Your task to perform on an android device: Open the stopwatch Image 0: 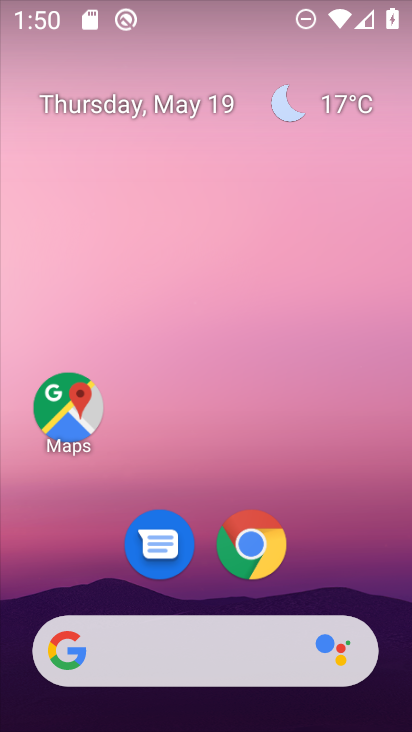
Step 0: drag from (226, 638) to (225, 248)
Your task to perform on an android device: Open the stopwatch Image 1: 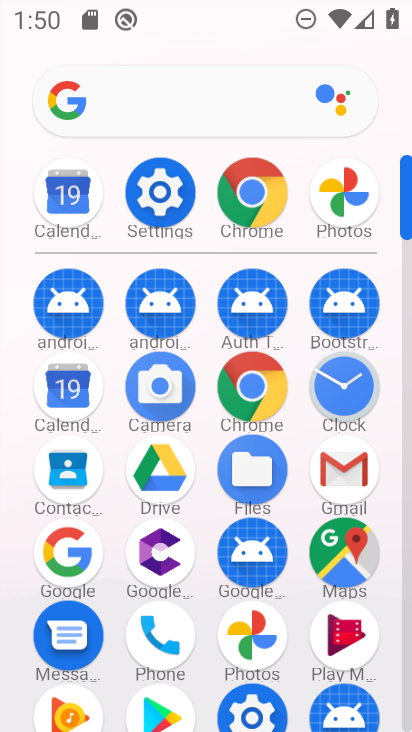
Step 1: click (337, 388)
Your task to perform on an android device: Open the stopwatch Image 2: 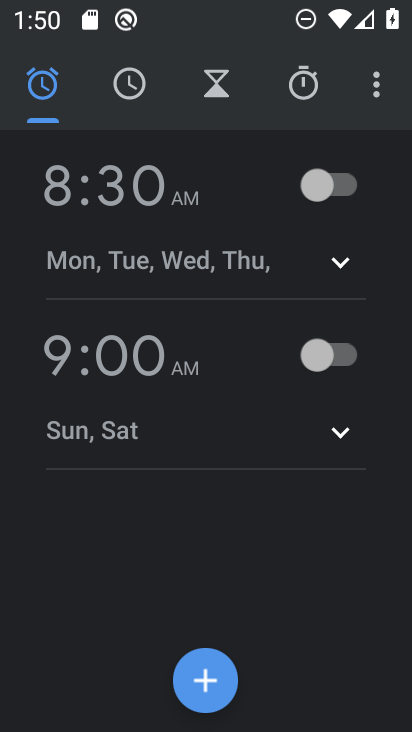
Step 2: click (309, 79)
Your task to perform on an android device: Open the stopwatch Image 3: 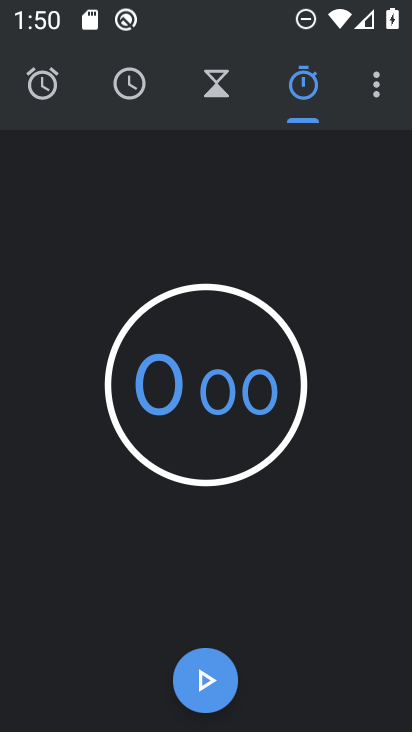
Step 3: task complete